Your task to perform on an android device: change the clock display to show seconds Image 0: 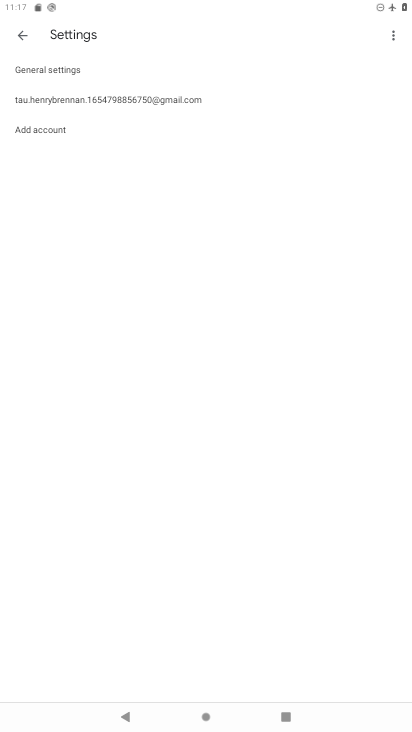
Step 0: press home button
Your task to perform on an android device: change the clock display to show seconds Image 1: 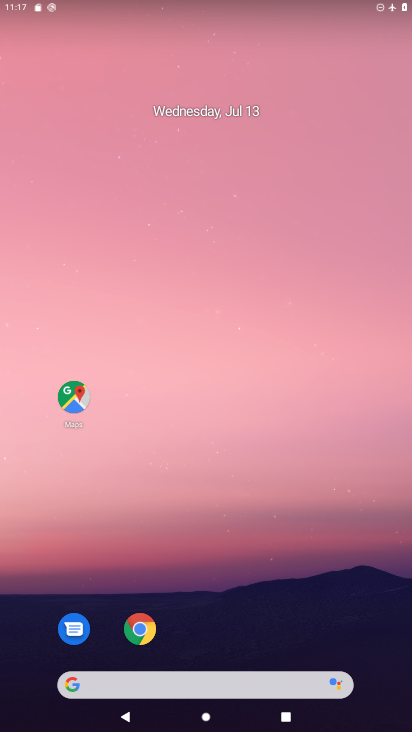
Step 1: drag from (379, 711) to (183, 0)
Your task to perform on an android device: change the clock display to show seconds Image 2: 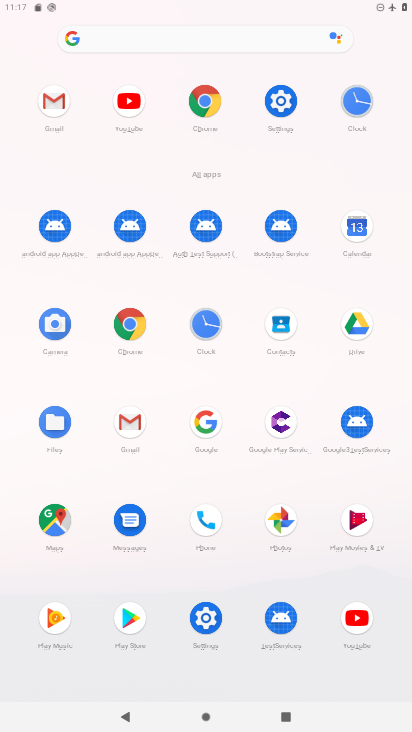
Step 2: click (196, 322)
Your task to perform on an android device: change the clock display to show seconds Image 3: 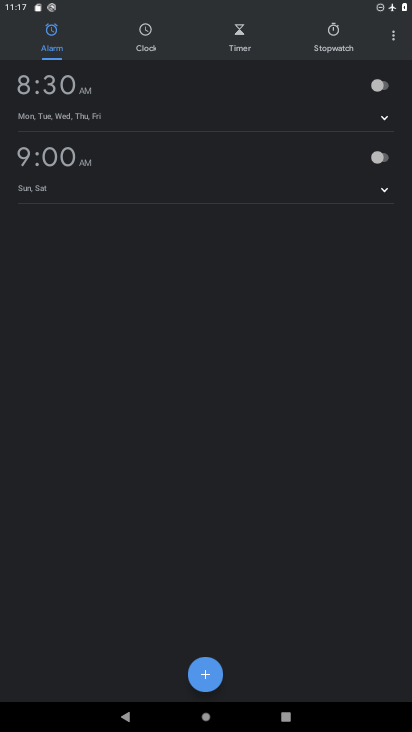
Step 3: click (391, 39)
Your task to perform on an android device: change the clock display to show seconds Image 4: 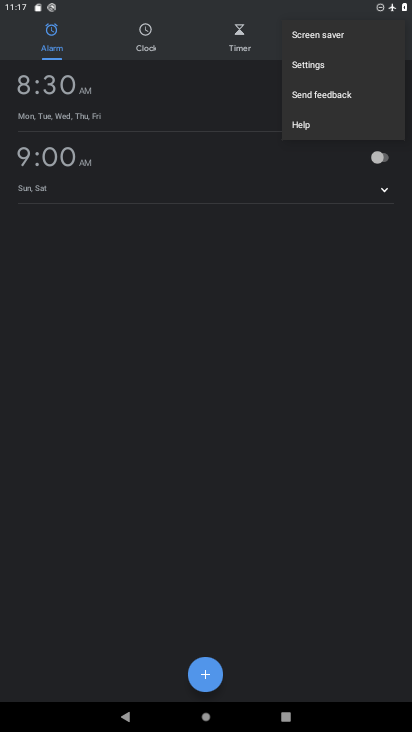
Step 4: click (292, 63)
Your task to perform on an android device: change the clock display to show seconds Image 5: 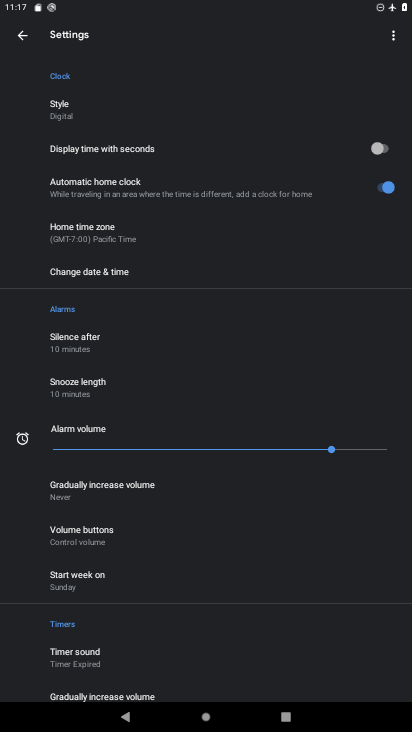
Step 5: click (380, 155)
Your task to perform on an android device: change the clock display to show seconds Image 6: 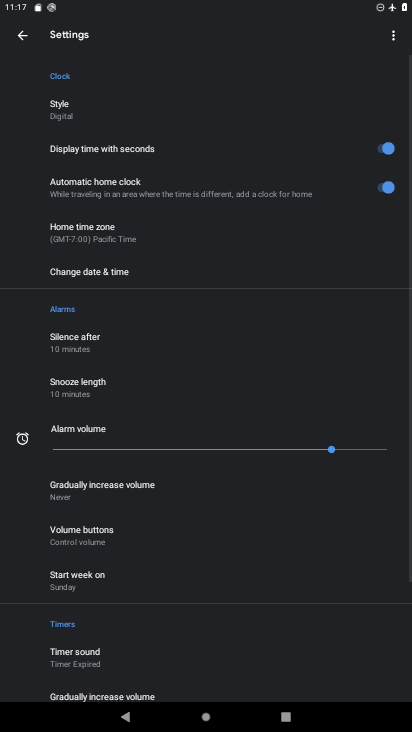
Step 6: task complete